Your task to perform on an android device: Add "asus zenbook" to the cart on newegg Image 0: 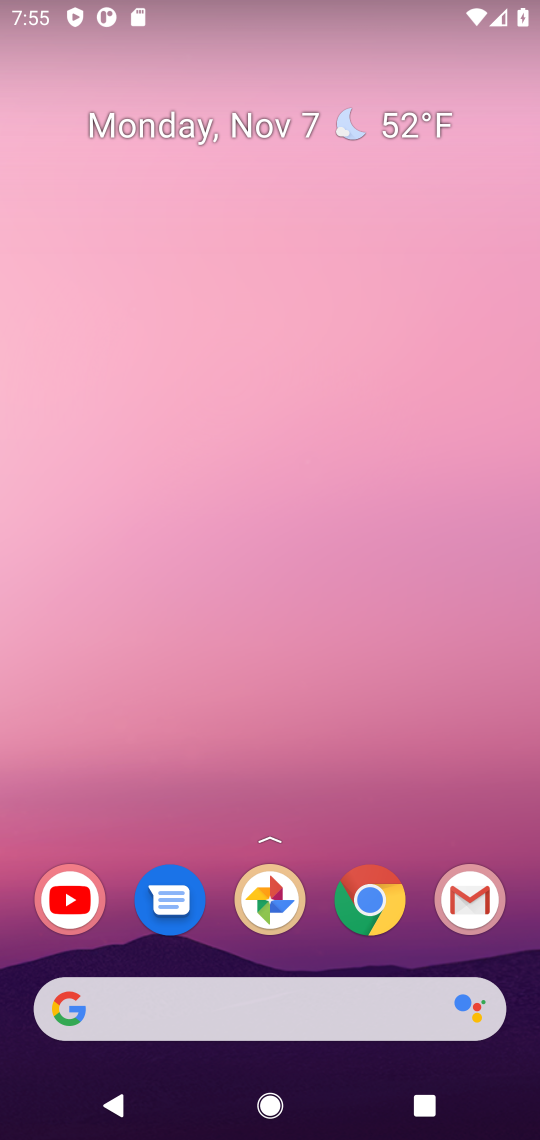
Step 0: click (183, 1025)
Your task to perform on an android device: Add "asus zenbook" to the cart on newegg Image 1: 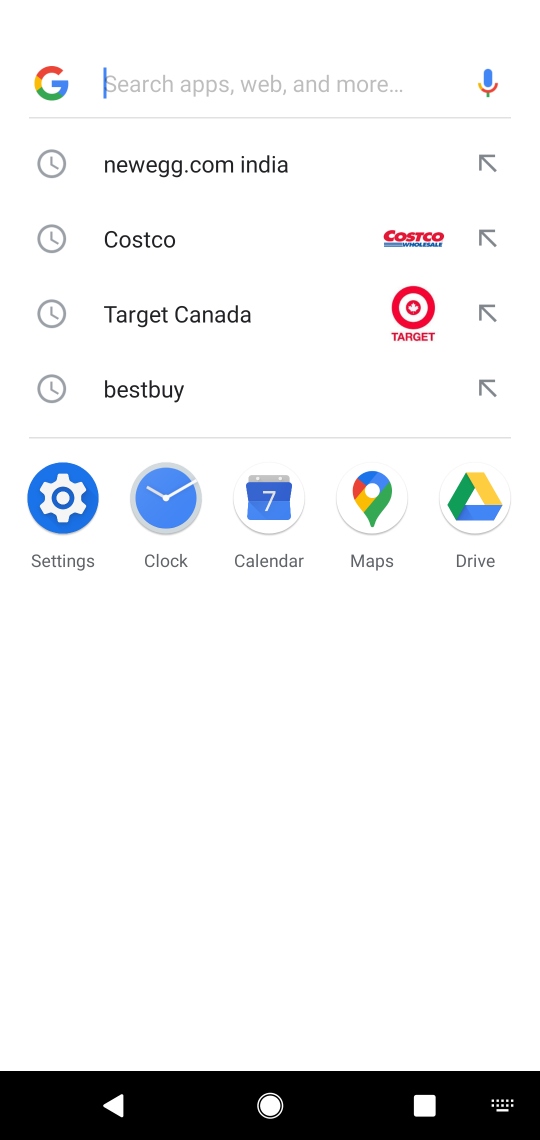
Step 1: click (190, 184)
Your task to perform on an android device: Add "asus zenbook" to the cart on newegg Image 2: 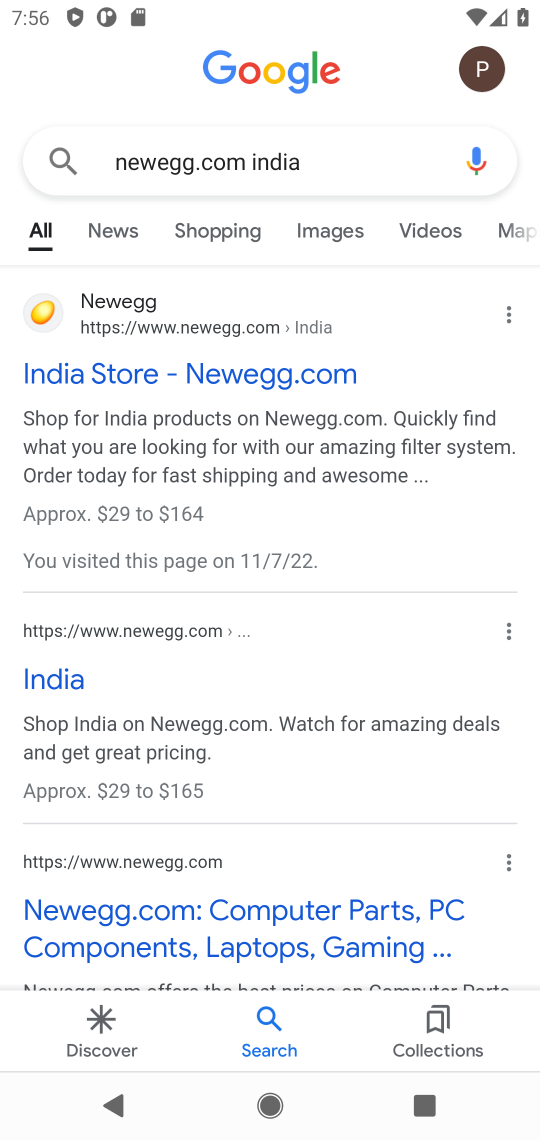
Step 2: click (56, 390)
Your task to perform on an android device: Add "asus zenbook" to the cart on newegg Image 3: 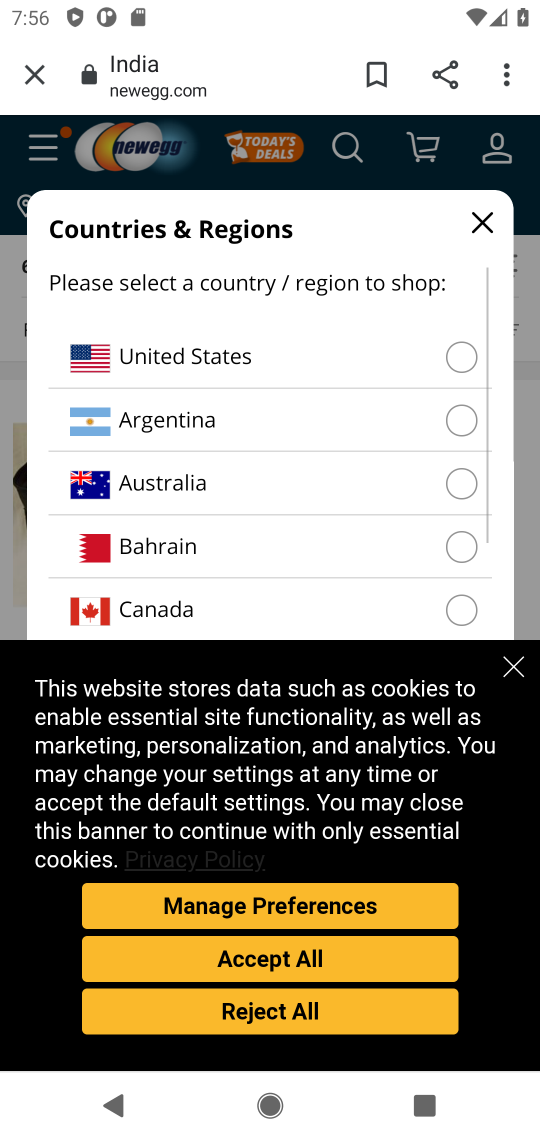
Step 3: task complete